Your task to perform on an android device: toggle improve location accuracy Image 0: 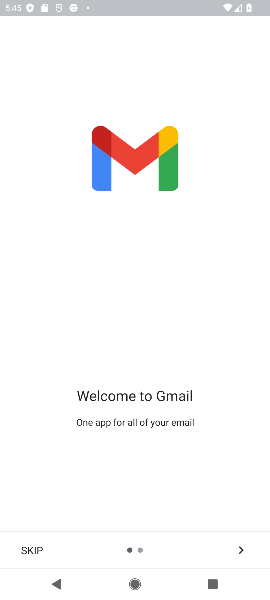
Step 0: press home button
Your task to perform on an android device: toggle improve location accuracy Image 1: 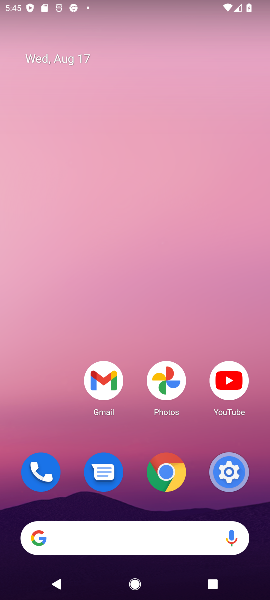
Step 1: click (238, 485)
Your task to perform on an android device: toggle improve location accuracy Image 2: 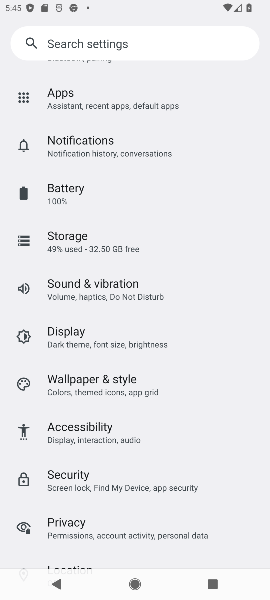
Step 2: drag from (139, 469) to (139, 185)
Your task to perform on an android device: toggle improve location accuracy Image 3: 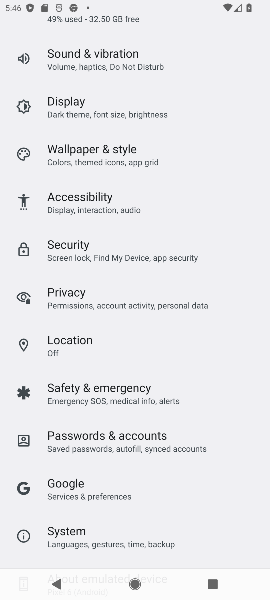
Step 3: click (72, 357)
Your task to perform on an android device: toggle improve location accuracy Image 4: 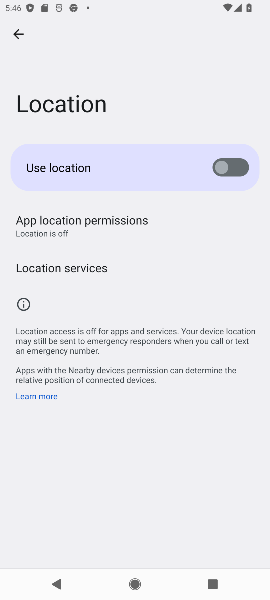
Step 4: click (90, 277)
Your task to perform on an android device: toggle improve location accuracy Image 5: 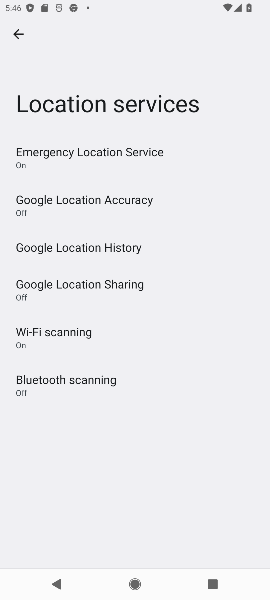
Step 5: click (115, 212)
Your task to perform on an android device: toggle improve location accuracy Image 6: 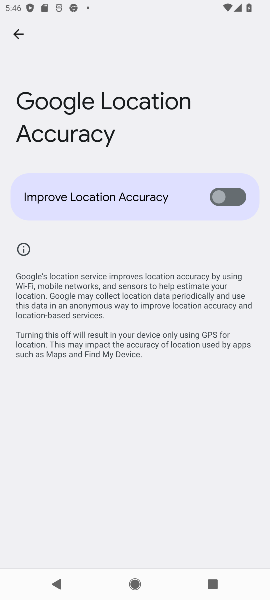
Step 6: click (230, 191)
Your task to perform on an android device: toggle improve location accuracy Image 7: 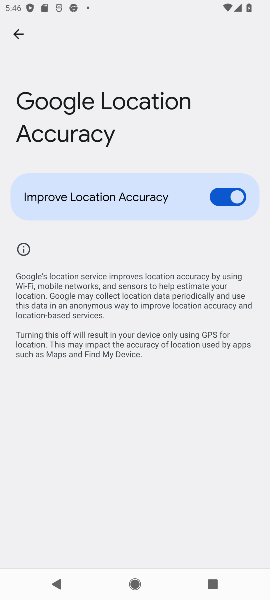
Step 7: task complete